Your task to perform on an android device: Search for the best movies of 2019  Image 0: 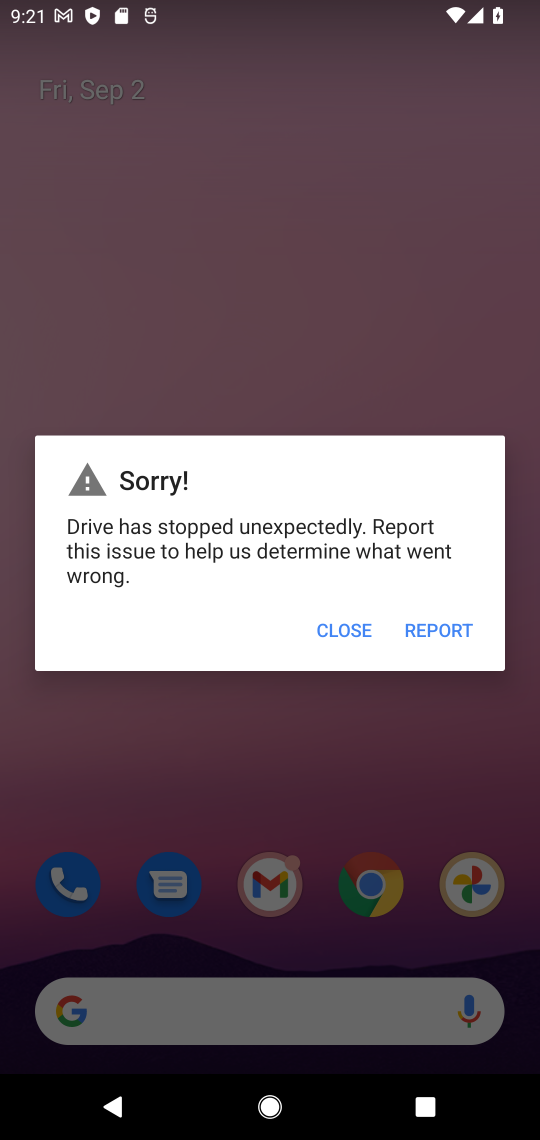
Step 0: press home button
Your task to perform on an android device: Search for the best movies of 2019  Image 1: 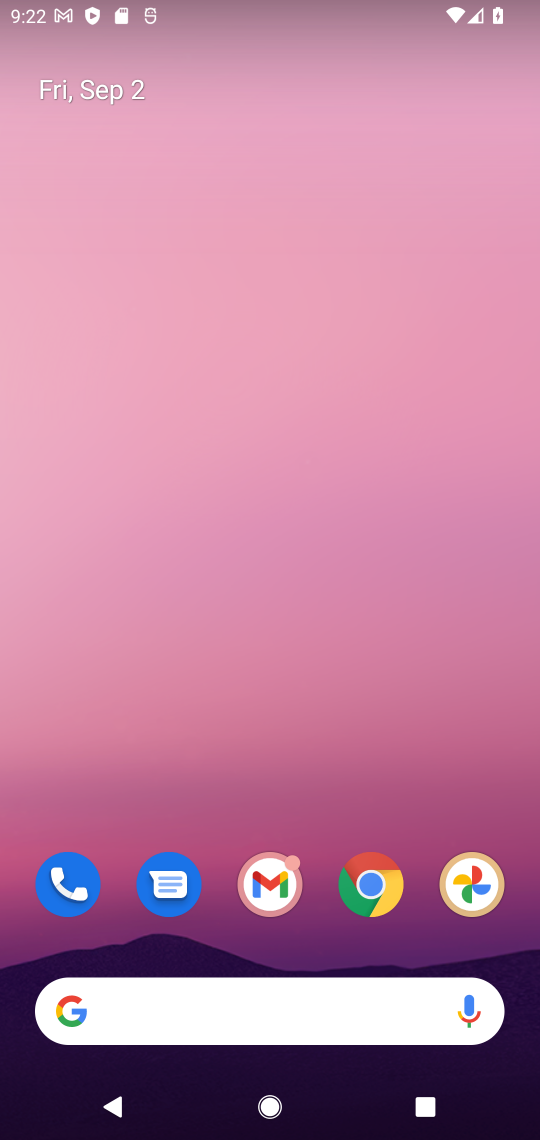
Step 1: click (384, 894)
Your task to perform on an android device: Search for the best movies of 2019  Image 2: 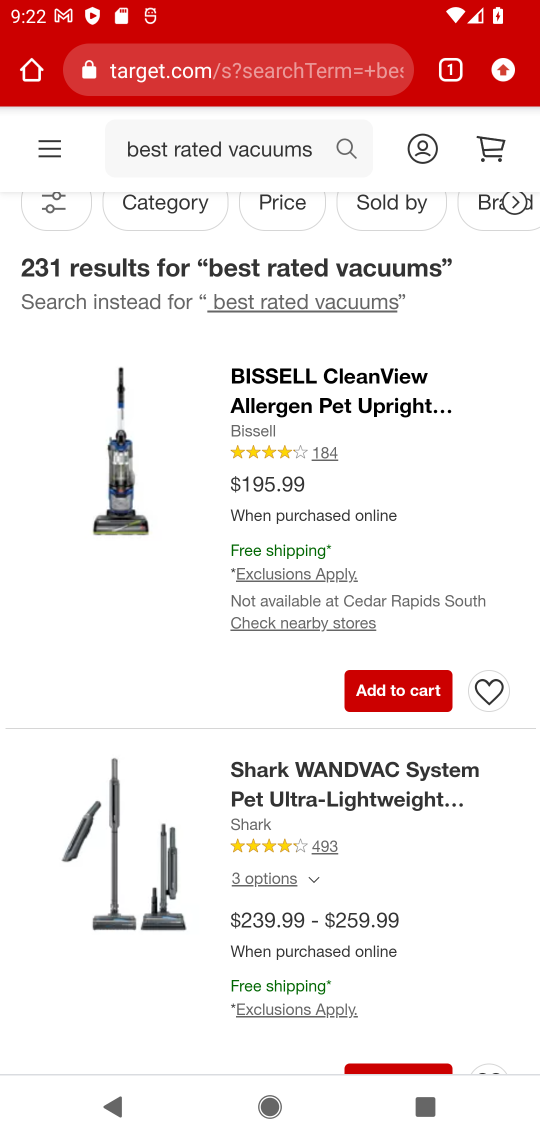
Step 2: click (285, 79)
Your task to perform on an android device: Search for the best movies of 2019  Image 3: 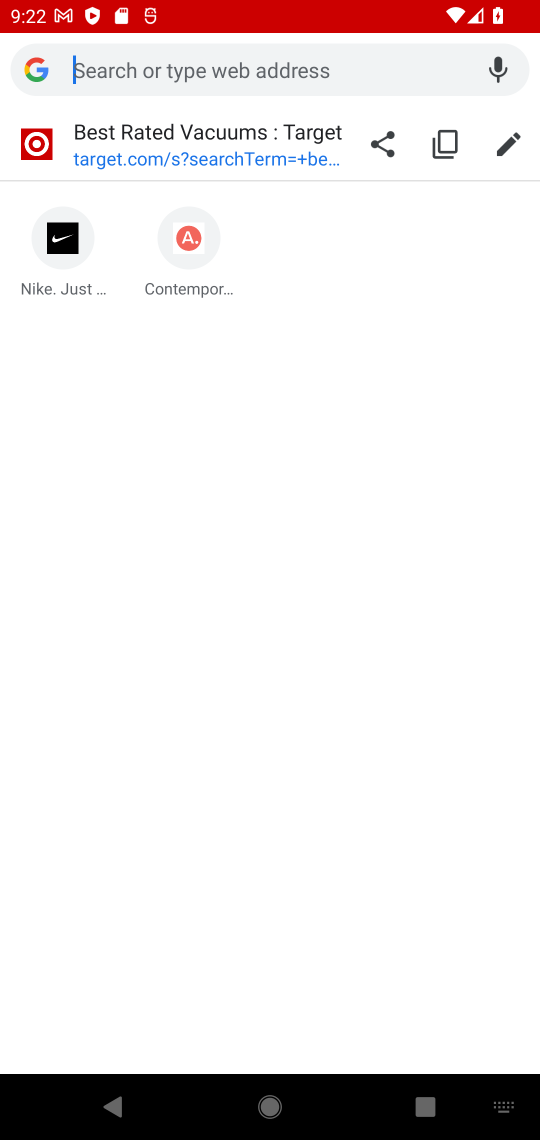
Step 3: type "best movies of 2019"
Your task to perform on an android device: Search for the best movies of 2019  Image 4: 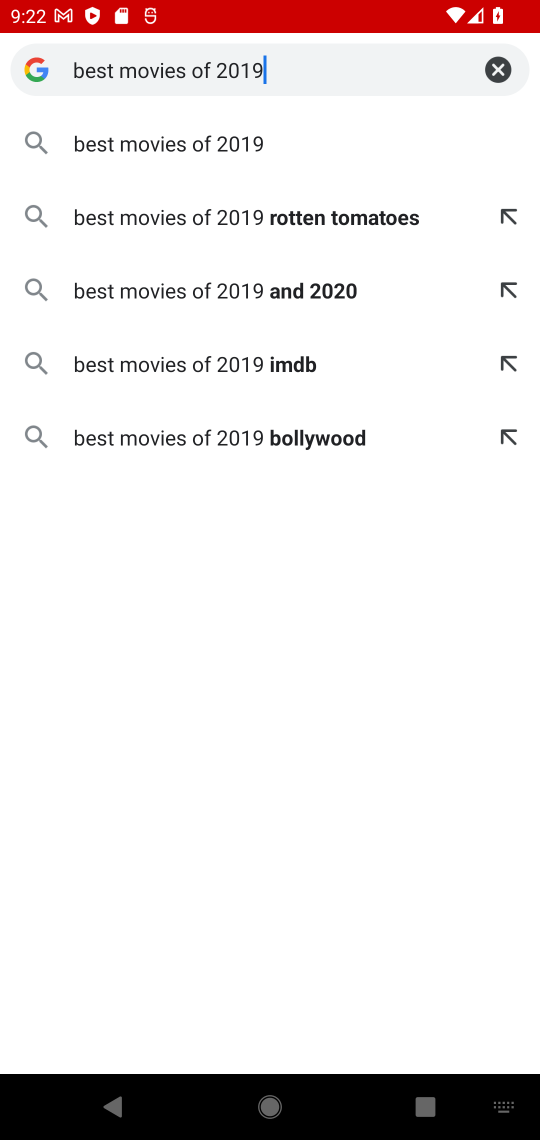
Step 4: click (170, 137)
Your task to perform on an android device: Search for the best movies of 2019  Image 5: 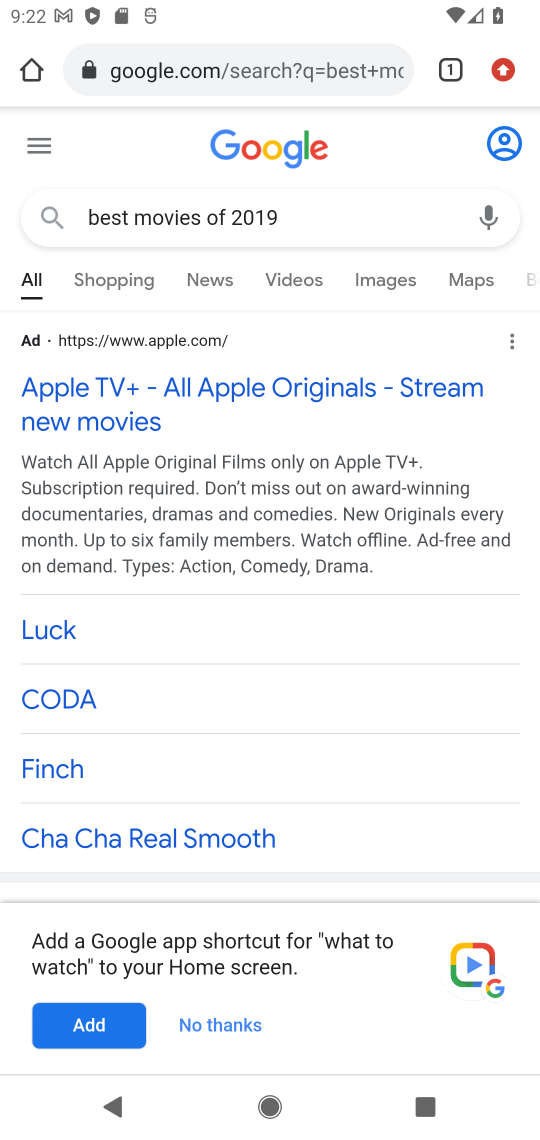
Step 5: task complete